Your task to perform on an android device: Check the news Image 0: 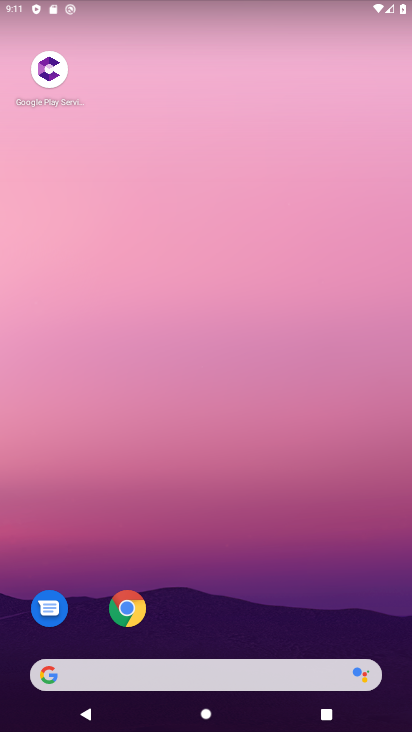
Step 0: press home button
Your task to perform on an android device: Check the news Image 1: 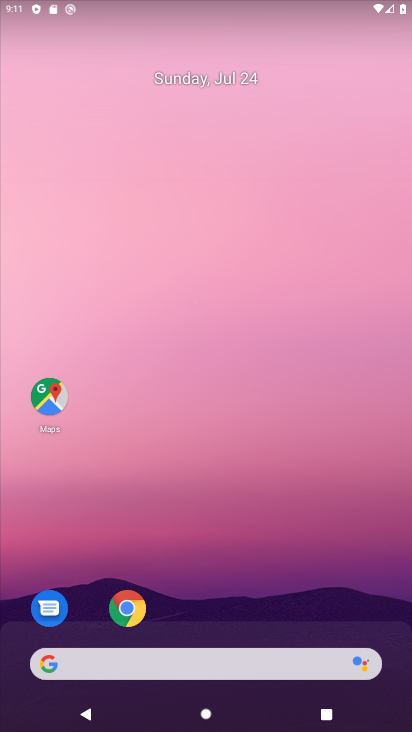
Step 1: click (41, 681)
Your task to perform on an android device: Check the news Image 2: 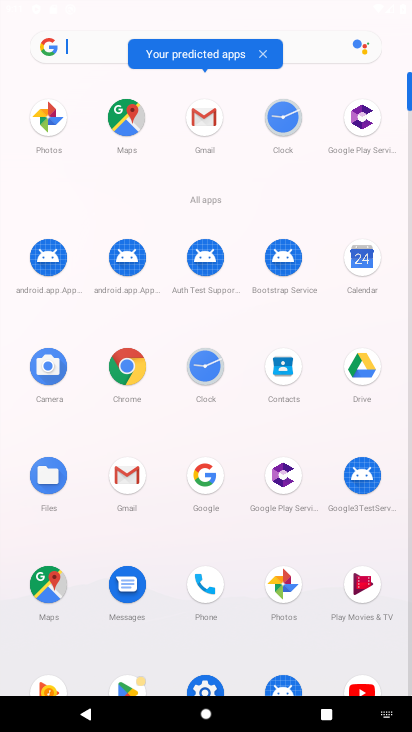
Step 2: press home button
Your task to perform on an android device: Check the news Image 3: 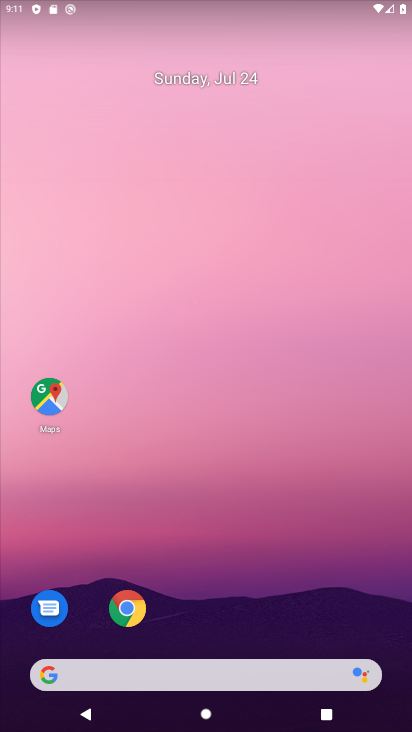
Step 3: click (48, 675)
Your task to perform on an android device: Check the news Image 4: 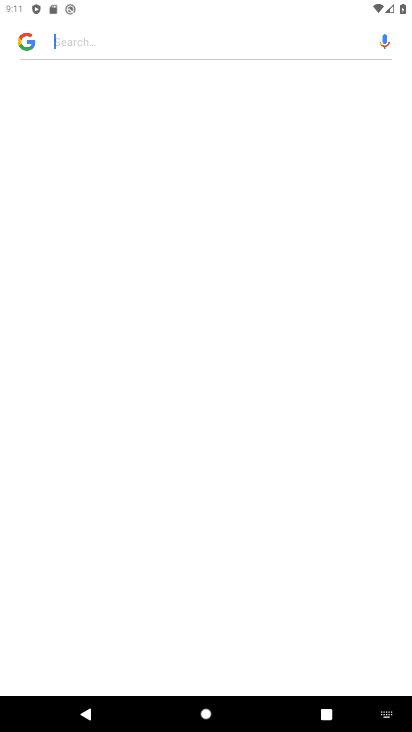
Step 4: type "news"
Your task to perform on an android device: Check the news Image 5: 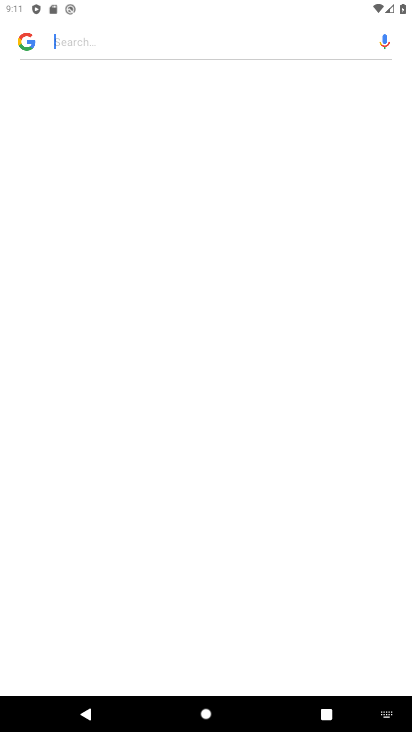
Step 5: click (108, 44)
Your task to perform on an android device: Check the news Image 6: 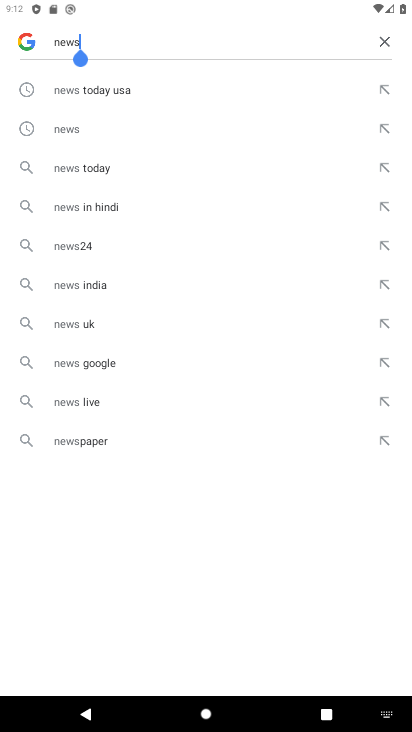
Step 6: press enter
Your task to perform on an android device: Check the news Image 7: 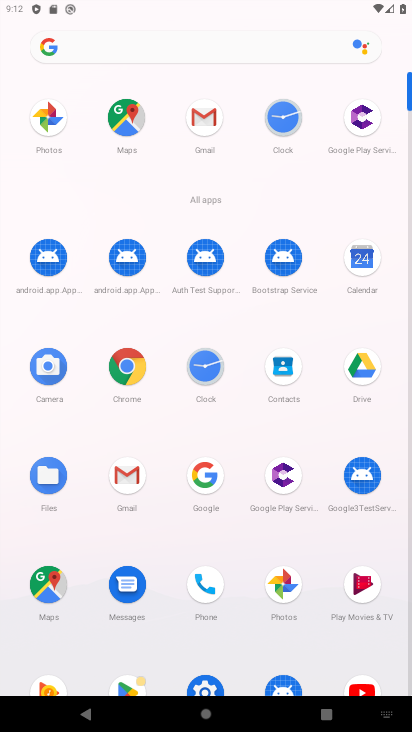
Step 7: press home button
Your task to perform on an android device: Check the news Image 8: 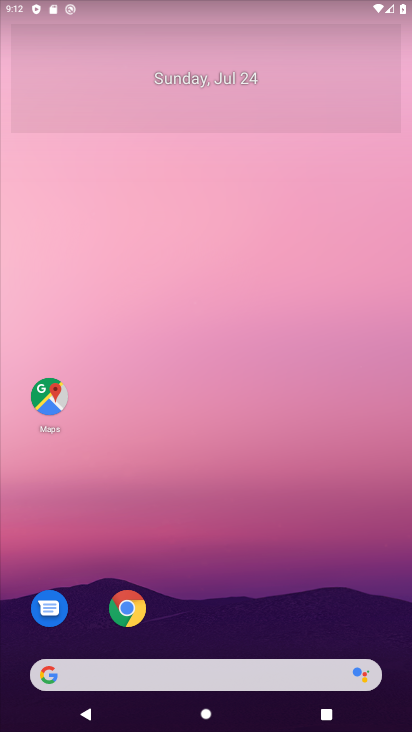
Step 8: click (51, 670)
Your task to perform on an android device: Check the news Image 9: 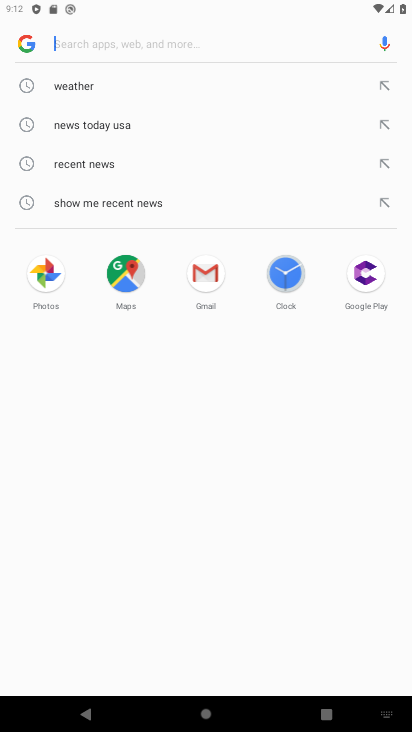
Step 9: type "news"
Your task to perform on an android device: Check the news Image 10: 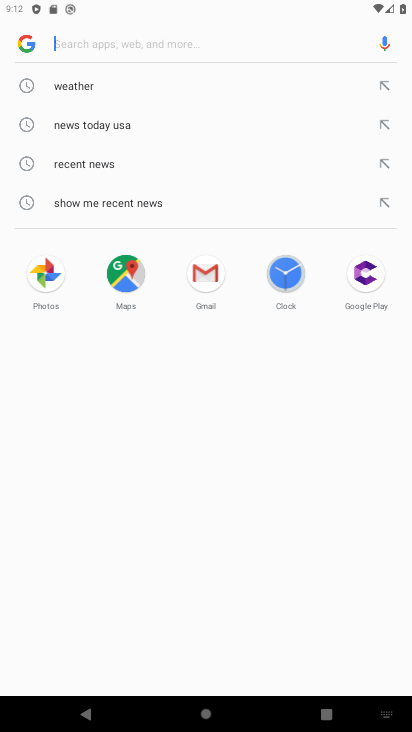
Step 10: click (91, 40)
Your task to perform on an android device: Check the news Image 11: 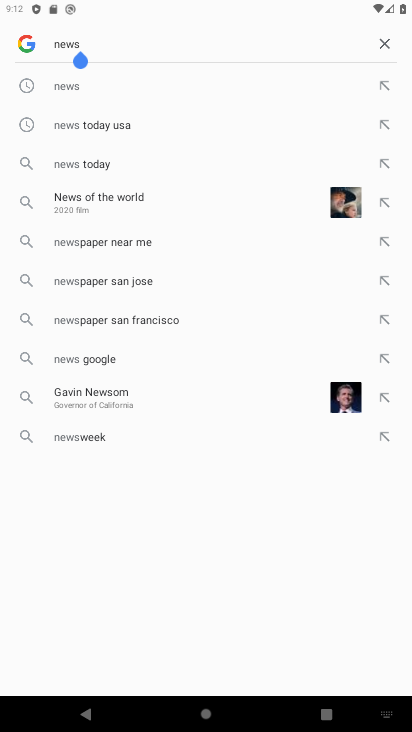
Step 11: click (64, 88)
Your task to perform on an android device: Check the news Image 12: 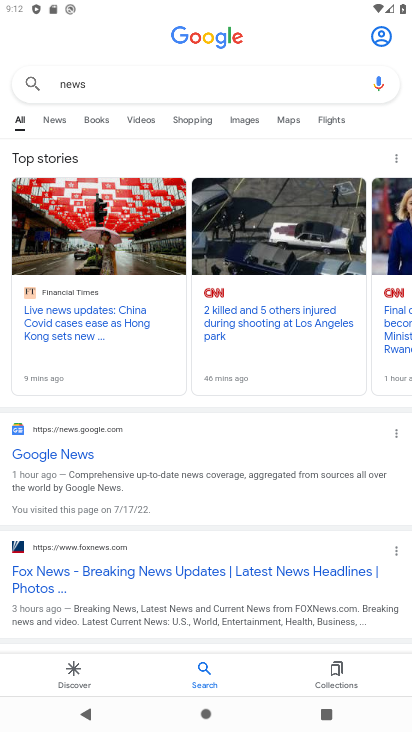
Step 12: task complete